Your task to perform on an android device: Open settings Image 0: 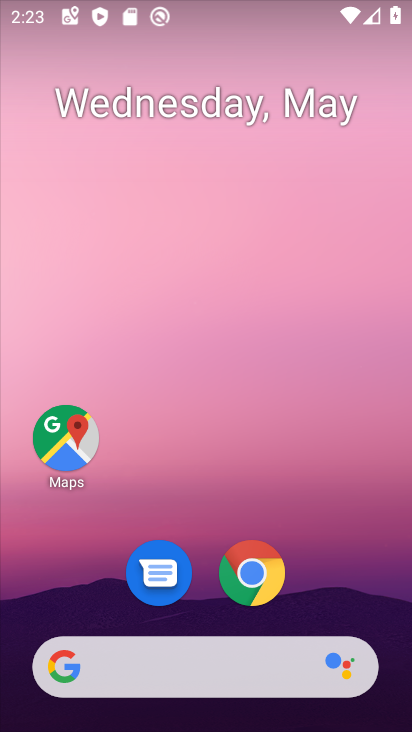
Step 0: drag from (313, 583) to (368, 32)
Your task to perform on an android device: Open settings Image 1: 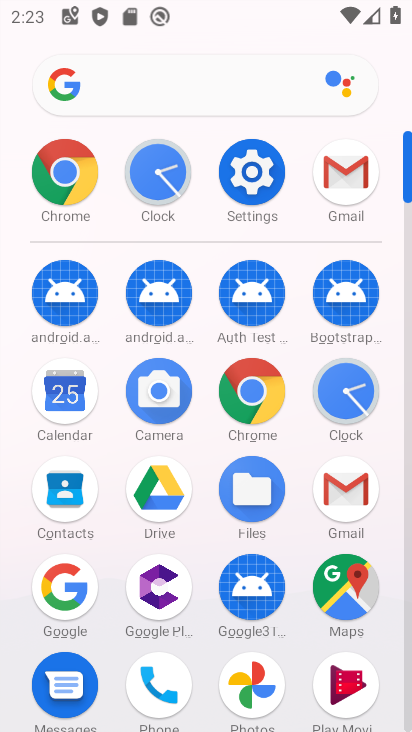
Step 1: click (268, 182)
Your task to perform on an android device: Open settings Image 2: 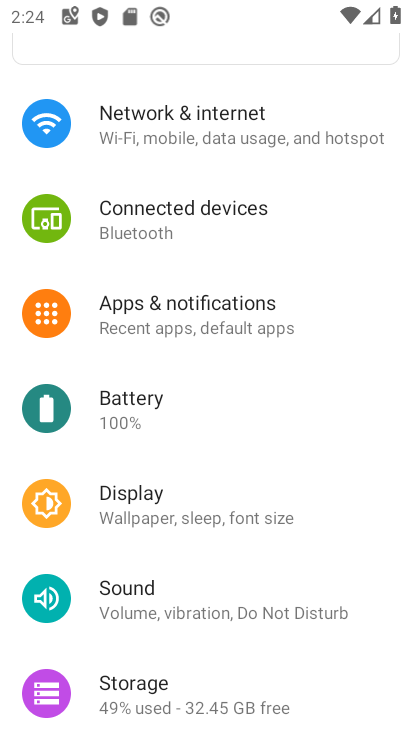
Step 2: task complete